Your task to perform on an android device: Open ESPN.com Image 0: 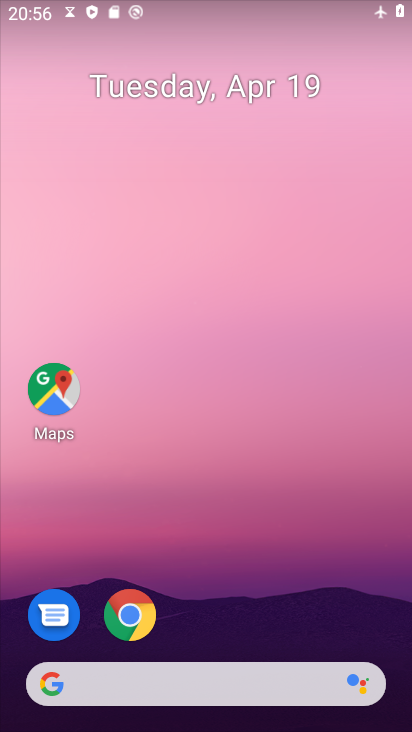
Step 0: drag from (382, 639) to (282, 16)
Your task to perform on an android device: Open ESPN.com Image 1: 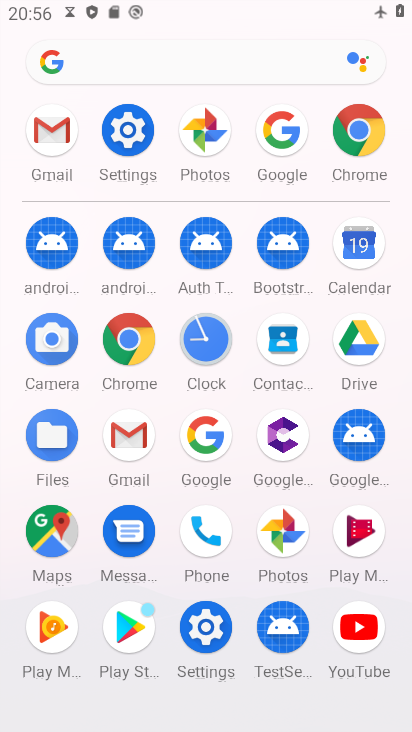
Step 1: click (128, 337)
Your task to perform on an android device: Open ESPN.com Image 2: 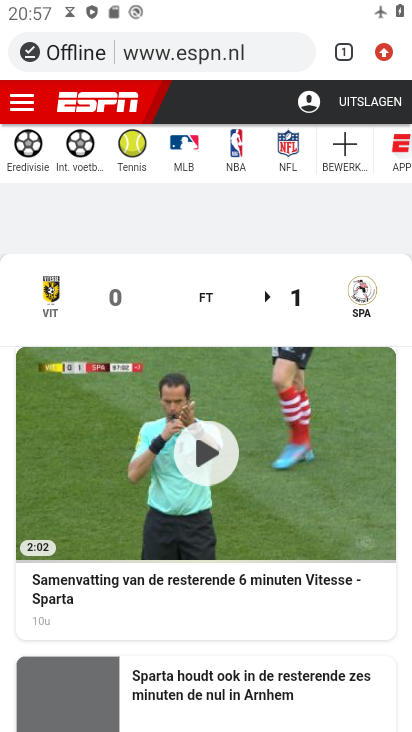
Step 2: task complete